Your task to perform on an android device: Go to CNN.com Image 0: 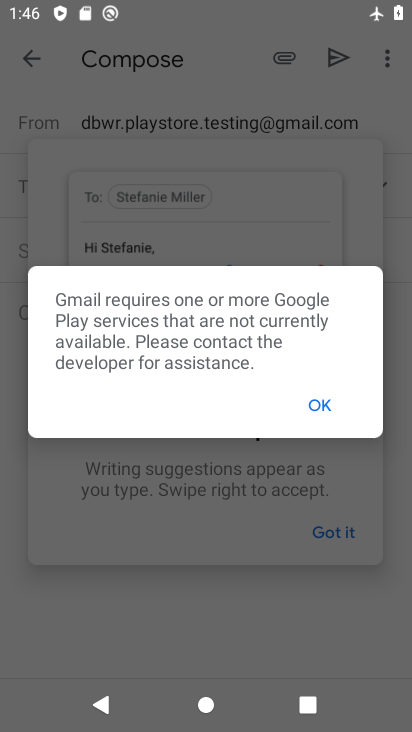
Step 0: press home button
Your task to perform on an android device: Go to CNN.com Image 1: 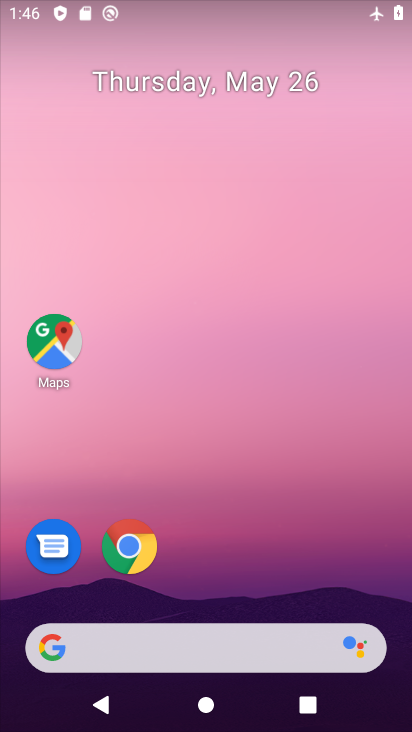
Step 1: drag from (225, 558) to (257, 120)
Your task to perform on an android device: Go to CNN.com Image 2: 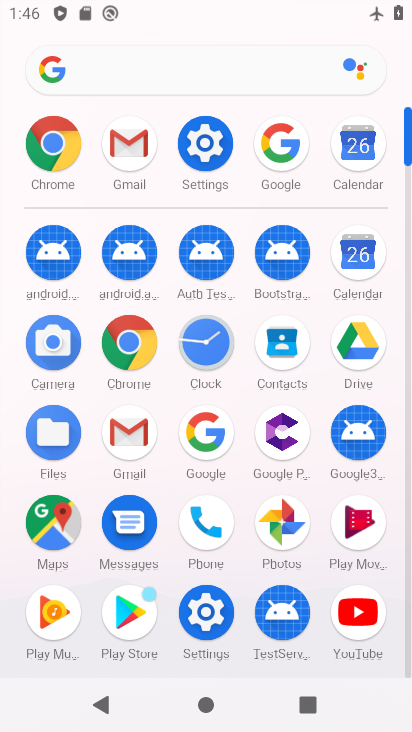
Step 2: click (214, 432)
Your task to perform on an android device: Go to CNN.com Image 3: 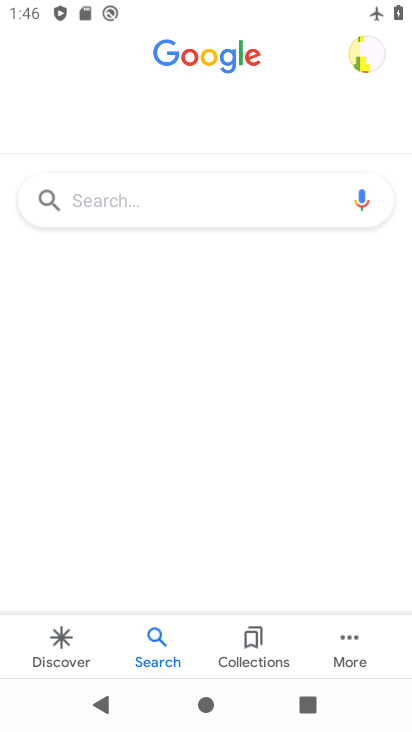
Step 3: click (189, 196)
Your task to perform on an android device: Go to CNN.com Image 4: 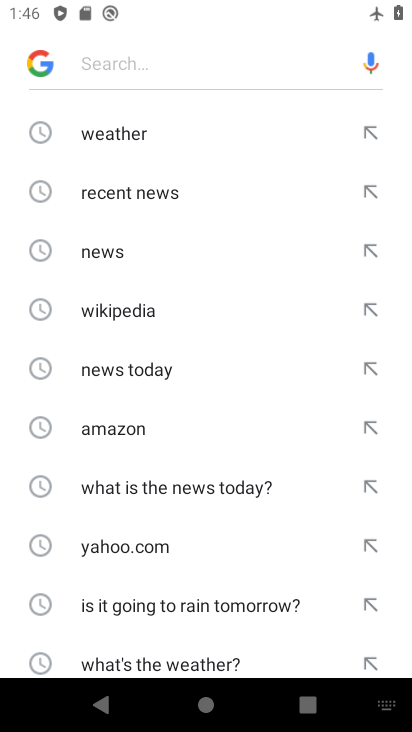
Step 4: drag from (165, 509) to (220, 104)
Your task to perform on an android device: Go to CNN.com Image 5: 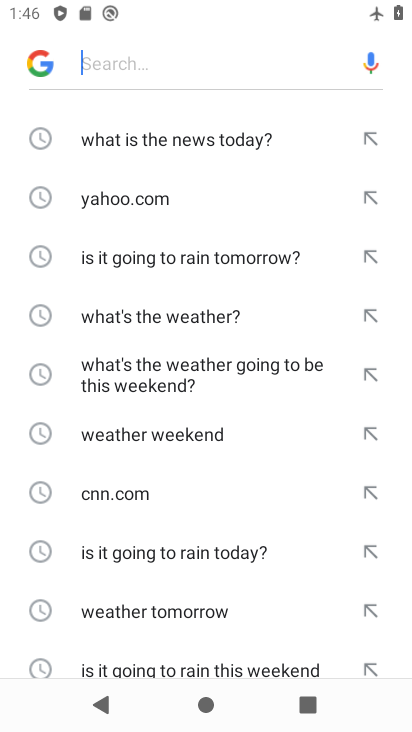
Step 5: click (88, 489)
Your task to perform on an android device: Go to CNN.com Image 6: 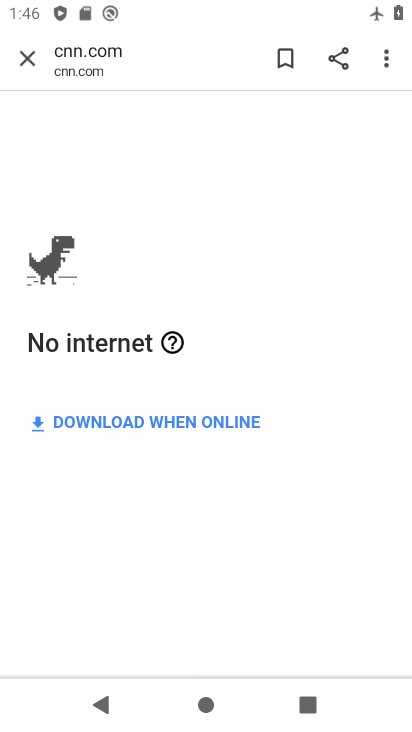
Step 6: task complete